Your task to perform on an android device: Check the weather Image 0: 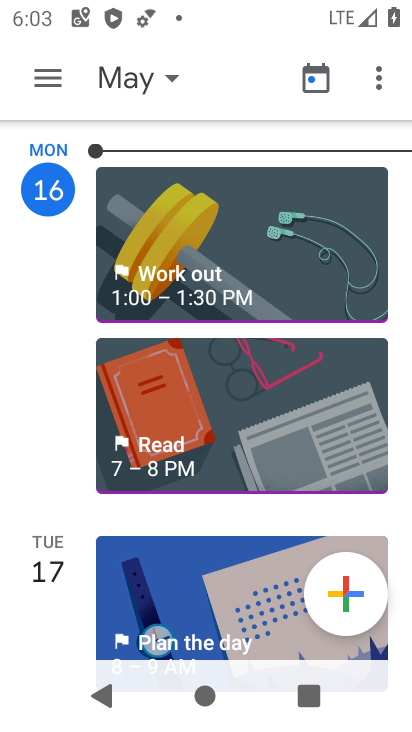
Step 0: press home button
Your task to perform on an android device: Check the weather Image 1: 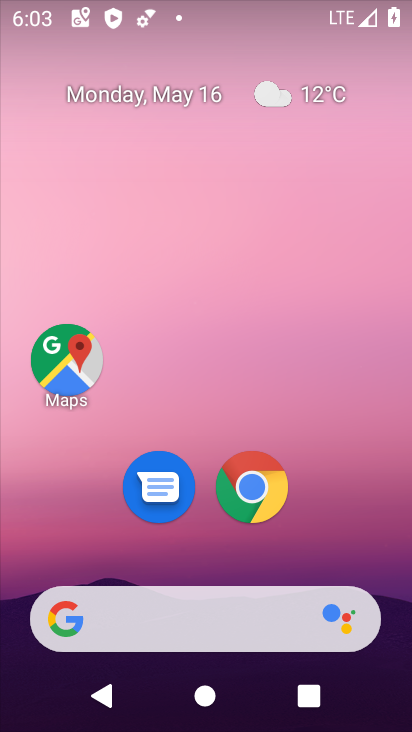
Step 1: click (260, 483)
Your task to perform on an android device: Check the weather Image 2: 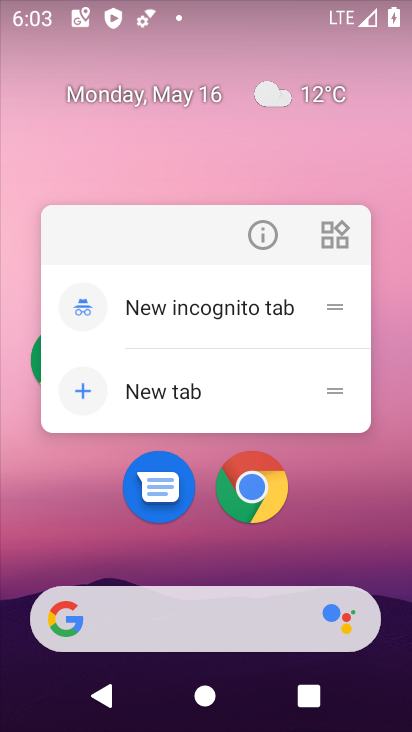
Step 2: click (265, 481)
Your task to perform on an android device: Check the weather Image 3: 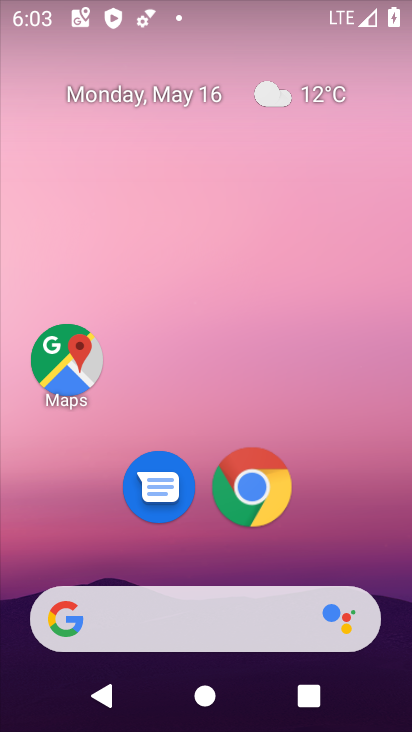
Step 3: click (257, 484)
Your task to perform on an android device: Check the weather Image 4: 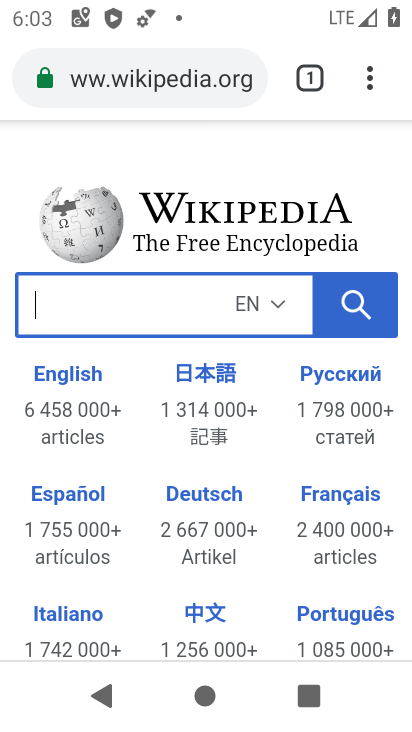
Step 4: click (172, 70)
Your task to perform on an android device: Check the weather Image 5: 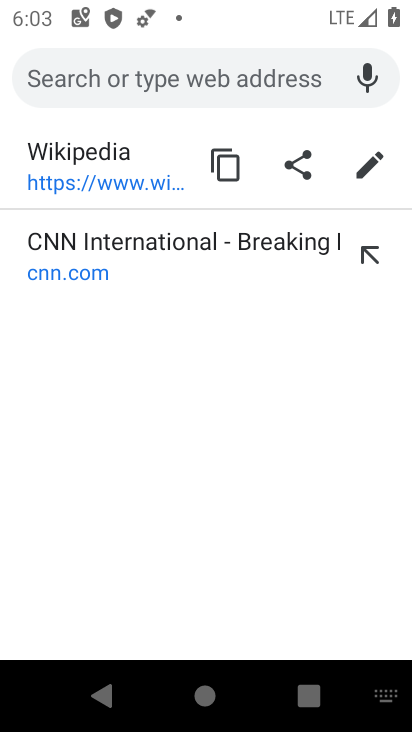
Step 5: type "weather"
Your task to perform on an android device: Check the weather Image 6: 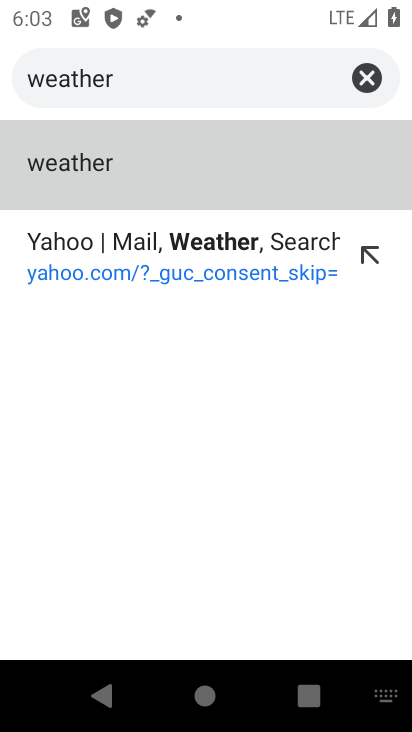
Step 6: click (95, 172)
Your task to perform on an android device: Check the weather Image 7: 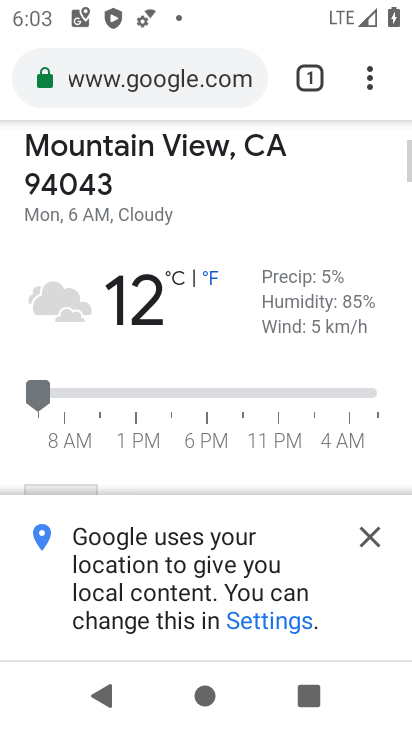
Step 7: task complete